Your task to perform on an android device: delete a single message in the gmail app Image 0: 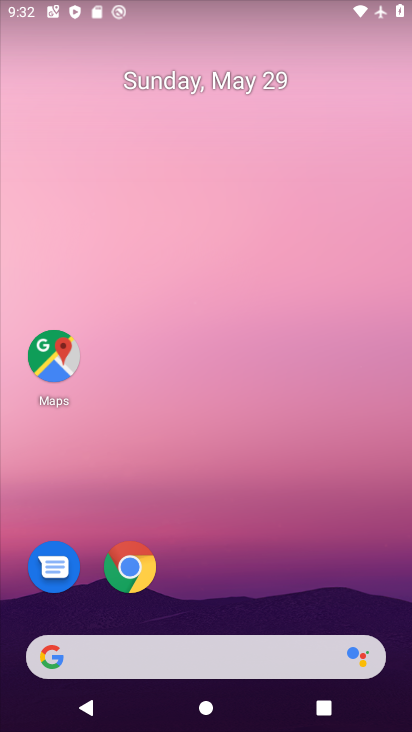
Step 0: drag from (387, 610) to (373, 23)
Your task to perform on an android device: delete a single message in the gmail app Image 1: 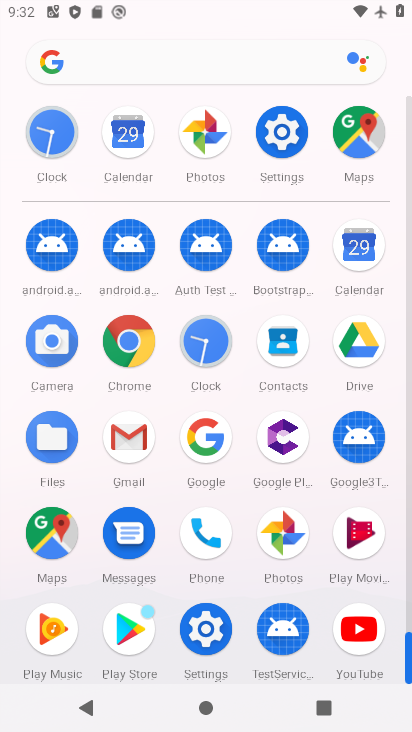
Step 1: click (129, 440)
Your task to perform on an android device: delete a single message in the gmail app Image 2: 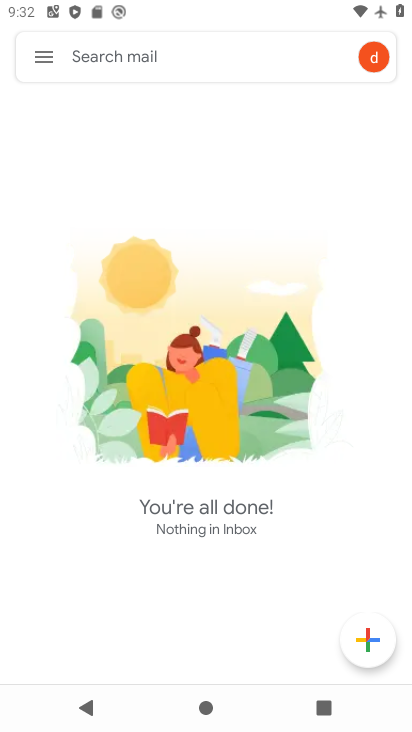
Step 2: click (45, 60)
Your task to perform on an android device: delete a single message in the gmail app Image 3: 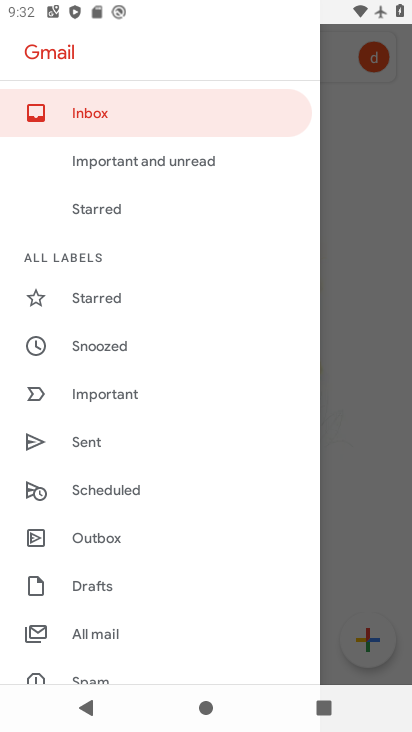
Step 3: drag from (169, 649) to (187, 363)
Your task to perform on an android device: delete a single message in the gmail app Image 4: 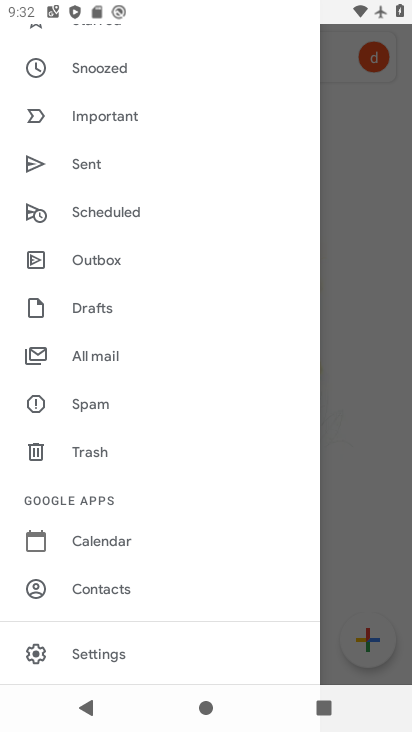
Step 4: click (96, 348)
Your task to perform on an android device: delete a single message in the gmail app Image 5: 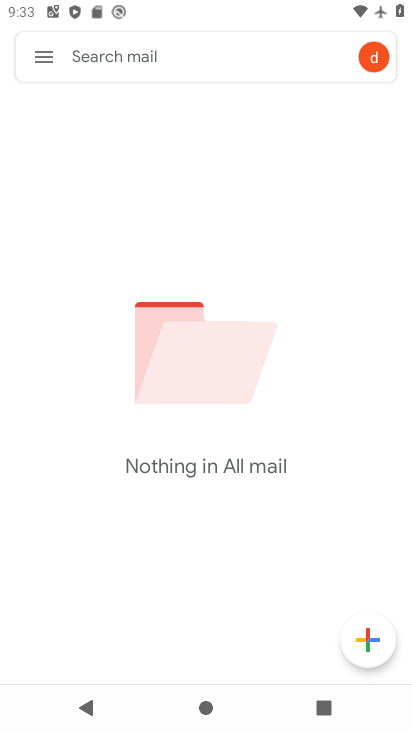
Step 5: task complete